Your task to perform on an android device: open a bookmark in the chrome app Image 0: 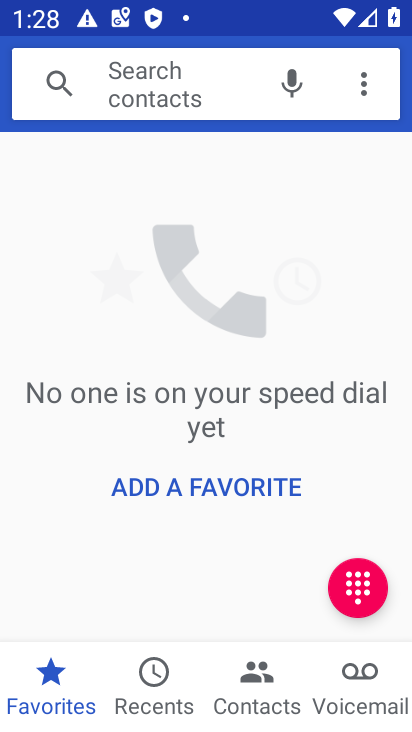
Step 0: press home button
Your task to perform on an android device: open a bookmark in the chrome app Image 1: 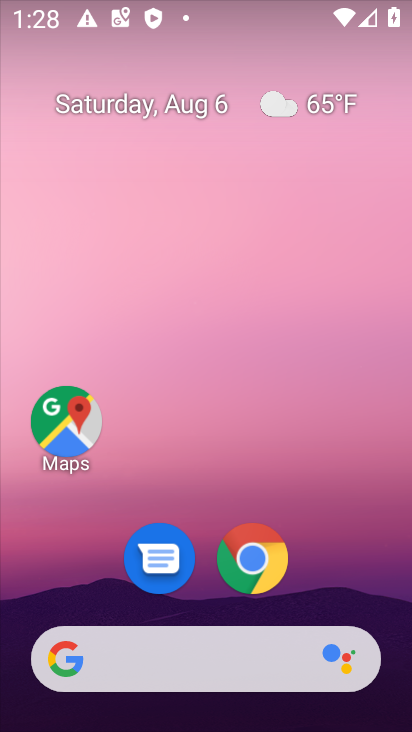
Step 1: click (275, 585)
Your task to perform on an android device: open a bookmark in the chrome app Image 2: 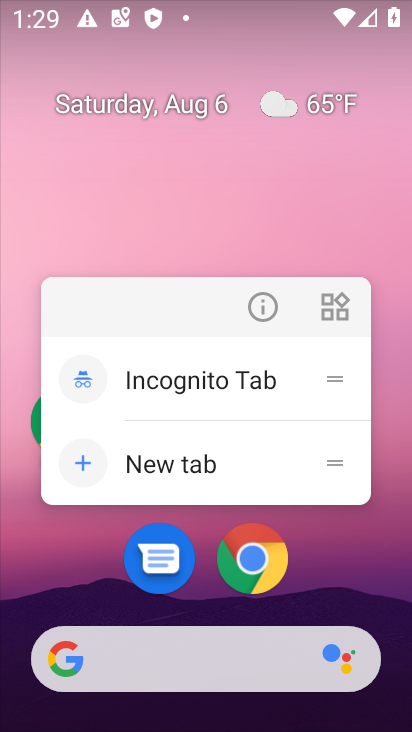
Step 2: click (257, 565)
Your task to perform on an android device: open a bookmark in the chrome app Image 3: 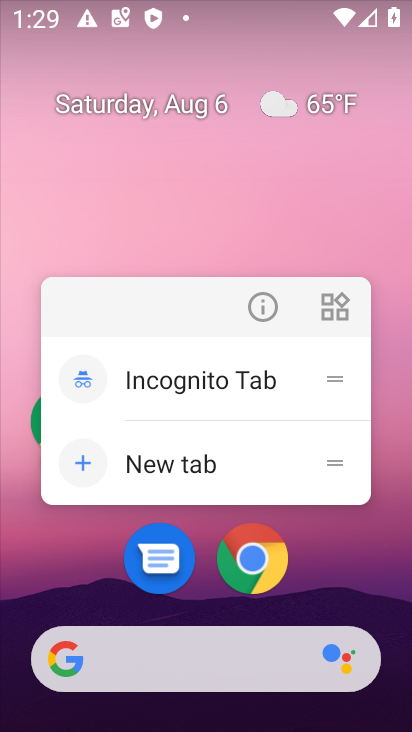
Step 3: click (240, 558)
Your task to perform on an android device: open a bookmark in the chrome app Image 4: 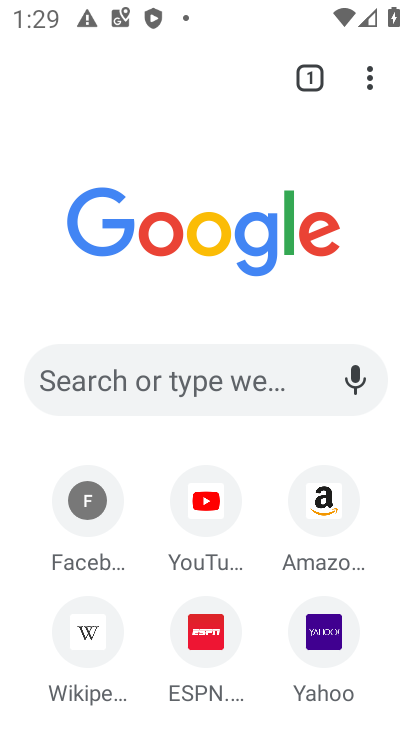
Step 4: drag from (364, 80) to (129, 299)
Your task to perform on an android device: open a bookmark in the chrome app Image 5: 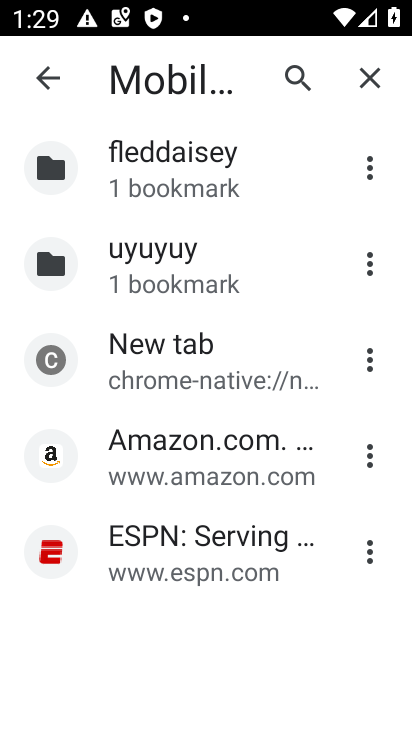
Step 5: click (198, 379)
Your task to perform on an android device: open a bookmark in the chrome app Image 6: 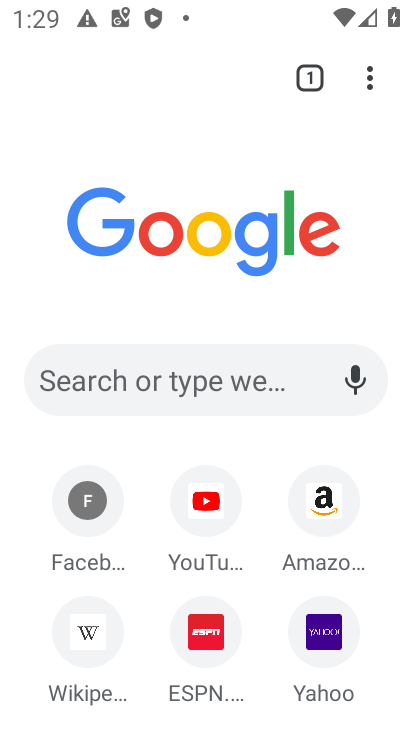
Step 6: task complete